Your task to perform on an android device: Is it going to rain tomorrow? Image 0: 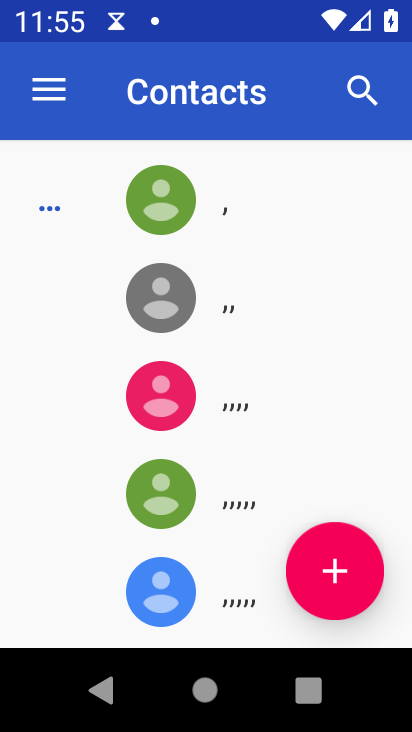
Step 0: press home button
Your task to perform on an android device: Is it going to rain tomorrow? Image 1: 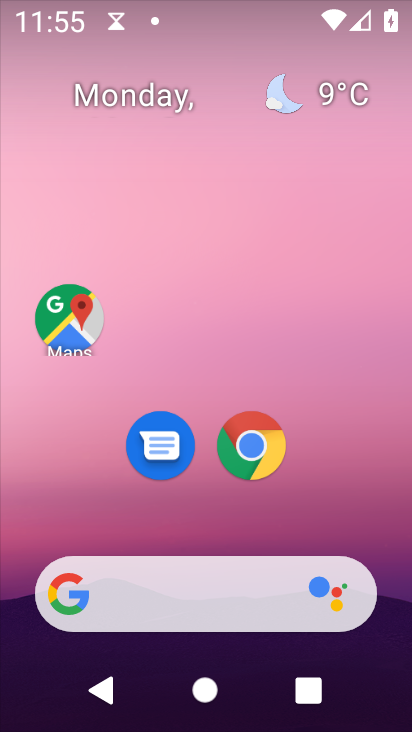
Step 1: drag from (272, 566) to (291, 22)
Your task to perform on an android device: Is it going to rain tomorrow? Image 2: 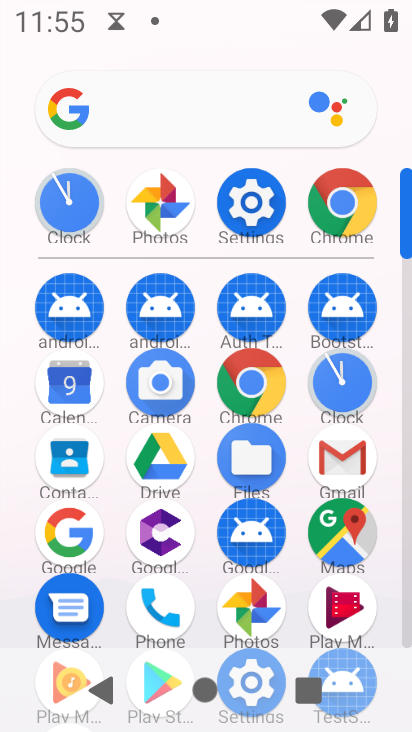
Step 2: click (252, 392)
Your task to perform on an android device: Is it going to rain tomorrow? Image 3: 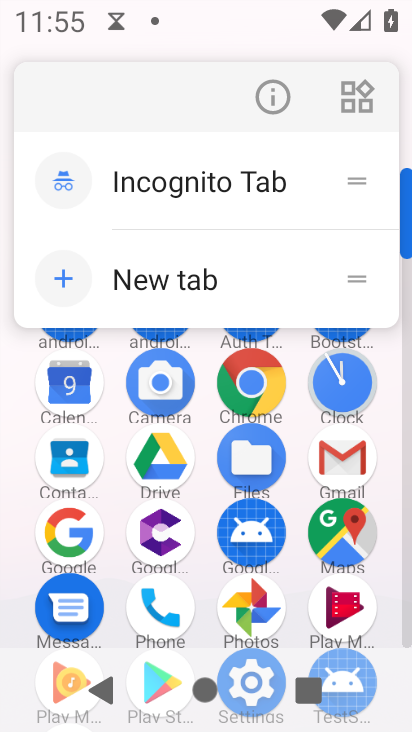
Step 3: click (253, 382)
Your task to perform on an android device: Is it going to rain tomorrow? Image 4: 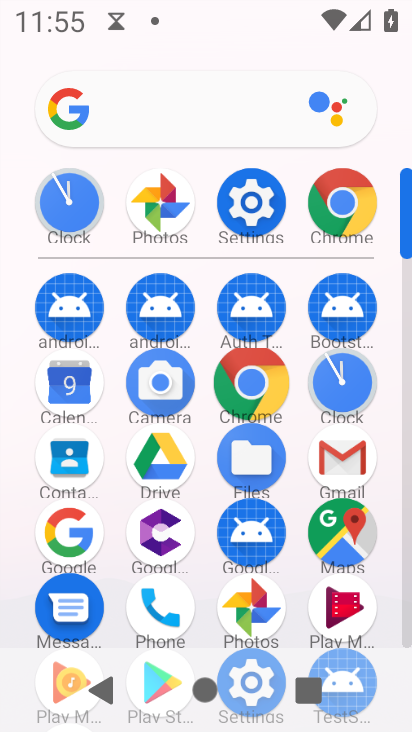
Step 4: click (253, 382)
Your task to perform on an android device: Is it going to rain tomorrow? Image 5: 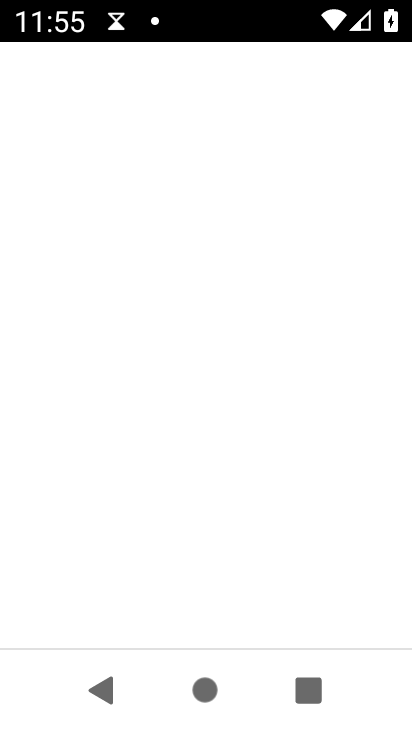
Step 5: click (253, 382)
Your task to perform on an android device: Is it going to rain tomorrow? Image 6: 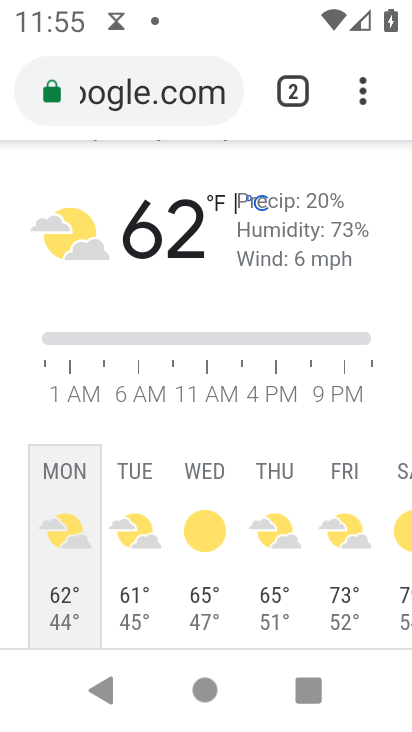
Step 6: type "rain "
Your task to perform on an android device: Is it going to rain tomorrow? Image 7: 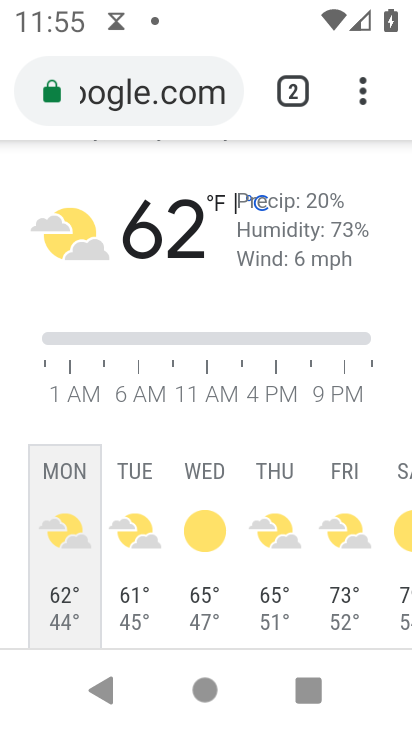
Step 7: click (177, 107)
Your task to perform on an android device: Is it going to rain tomorrow? Image 8: 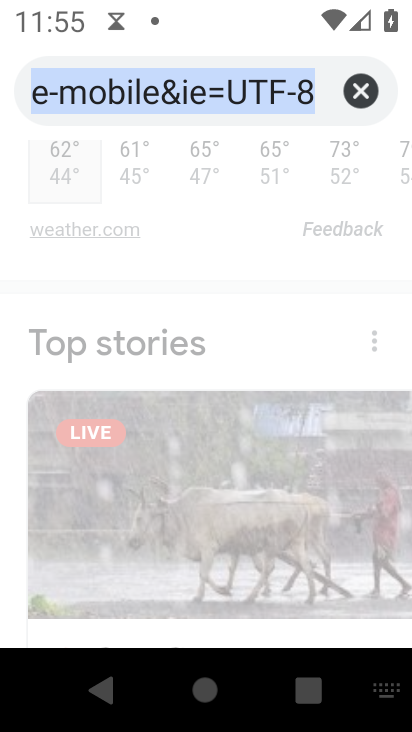
Step 8: click (357, 96)
Your task to perform on an android device: Is it going to rain tomorrow? Image 9: 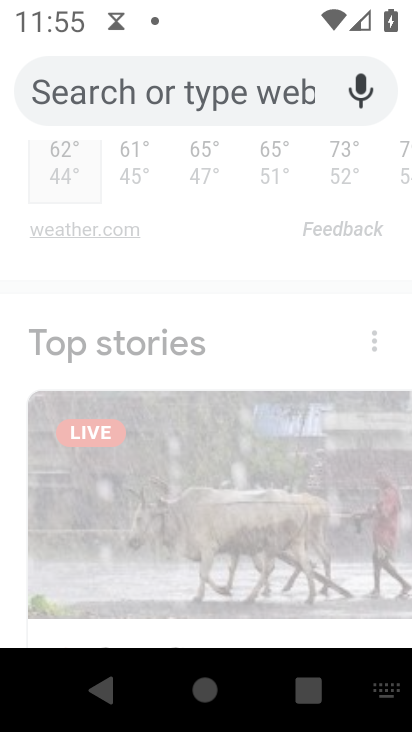
Step 9: type "rain tomorrow"
Your task to perform on an android device: Is it going to rain tomorrow? Image 10: 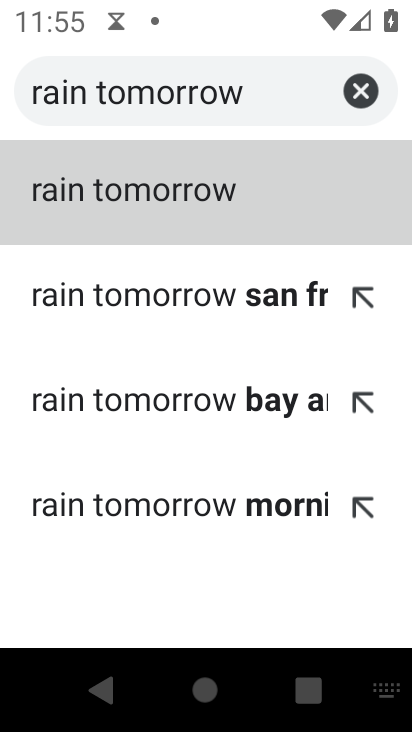
Step 10: click (92, 202)
Your task to perform on an android device: Is it going to rain tomorrow? Image 11: 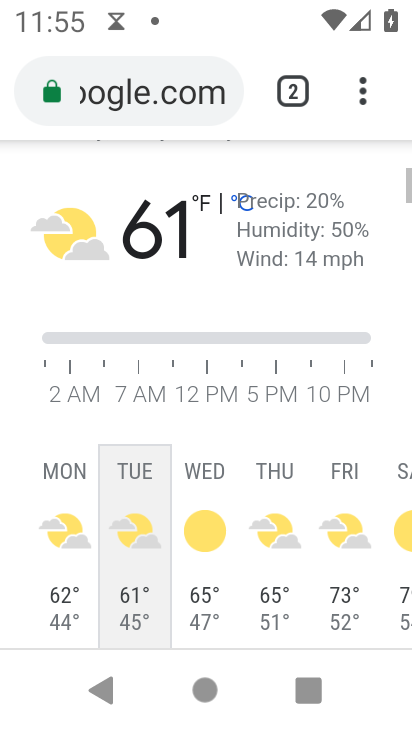
Step 11: task complete